Your task to perform on an android device: Open network settings Image 0: 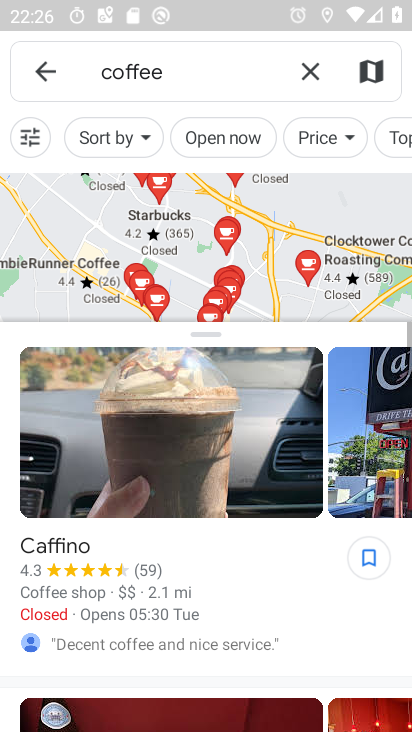
Step 0: press home button
Your task to perform on an android device: Open network settings Image 1: 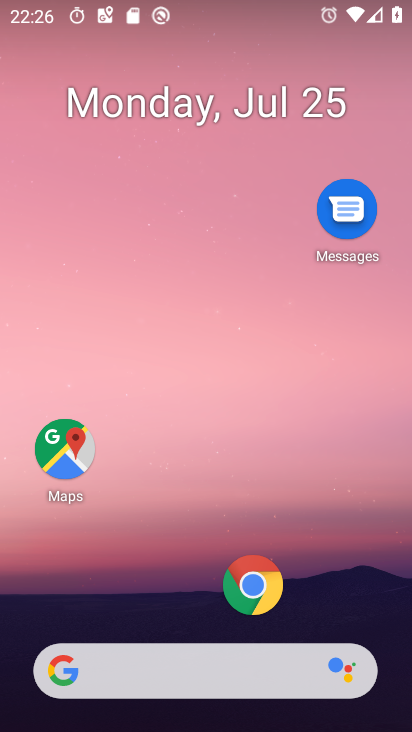
Step 1: drag from (192, 678) to (312, 101)
Your task to perform on an android device: Open network settings Image 2: 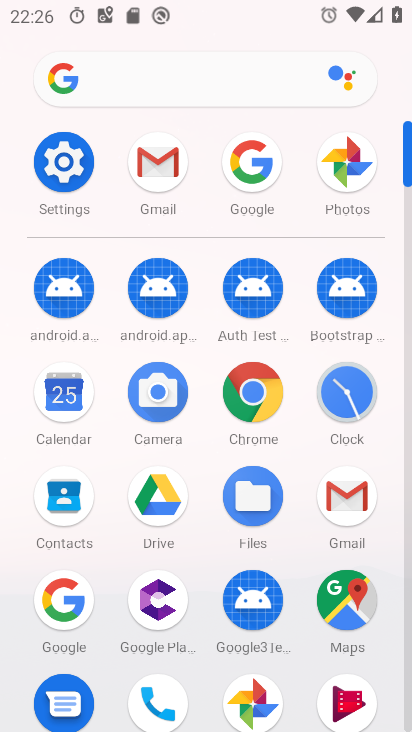
Step 2: click (68, 168)
Your task to perform on an android device: Open network settings Image 3: 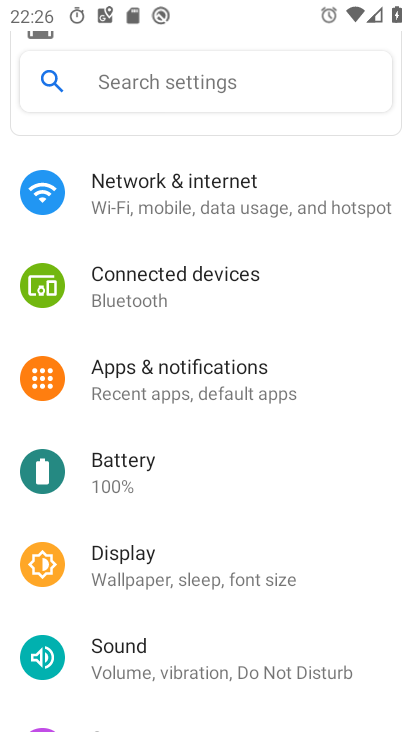
Step 3: click (197, 211)
Your task to perform on an android device: Open network settings Image 4: 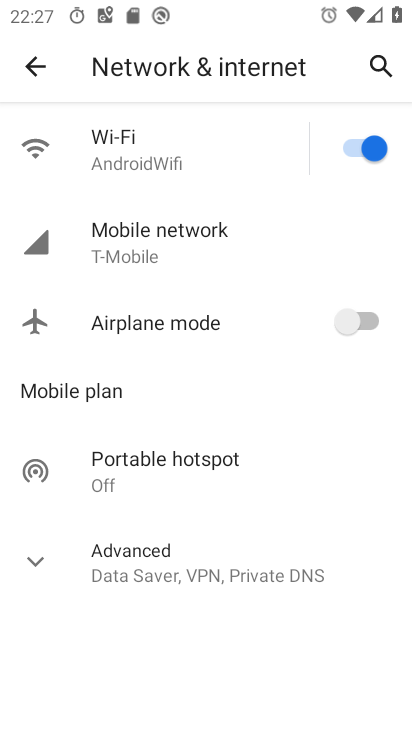
Step 4: click (145, 229)
Your task to perform on an android device: Open network settings Image 5: 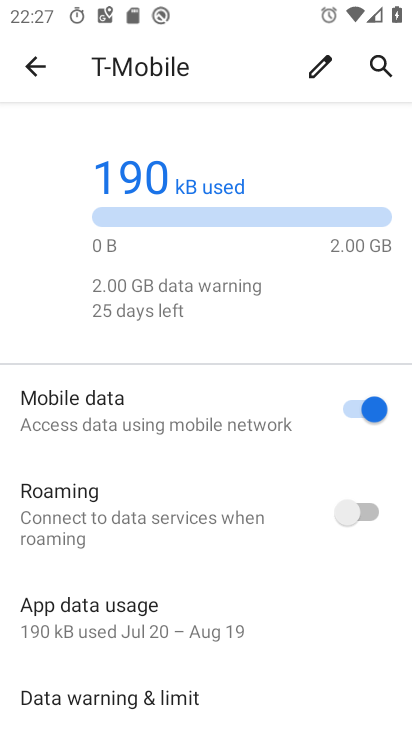
Step 5: task complete